Your task to perform on an android device: find snoozed emails in the gmail app Image 0: 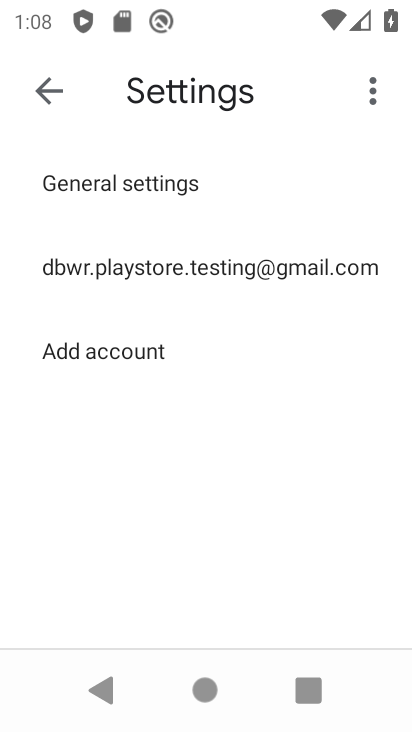
Step 0: press home button
Your task to perform on an android device: find snoozed emails in the gmail app Image 1: 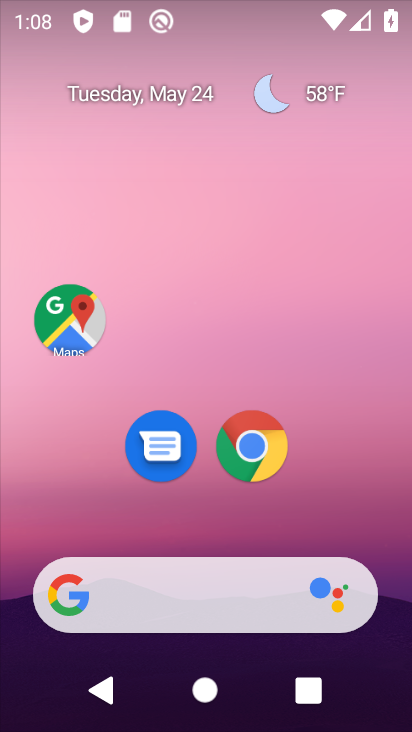
Step 1: drag from (238, 528) to (276, 243)
Your task to perform on an android device: find snoozed emails in the gmail app Image 2: 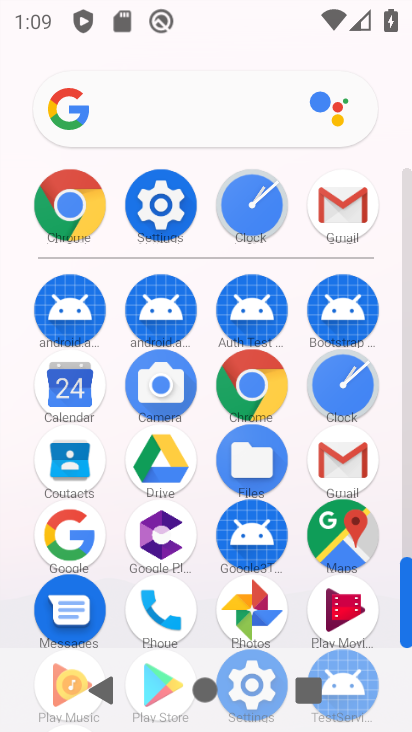
Step 2: click (341, 456)
Your task to perform on an android device: find snoozed emails in the gmail app Image 3: 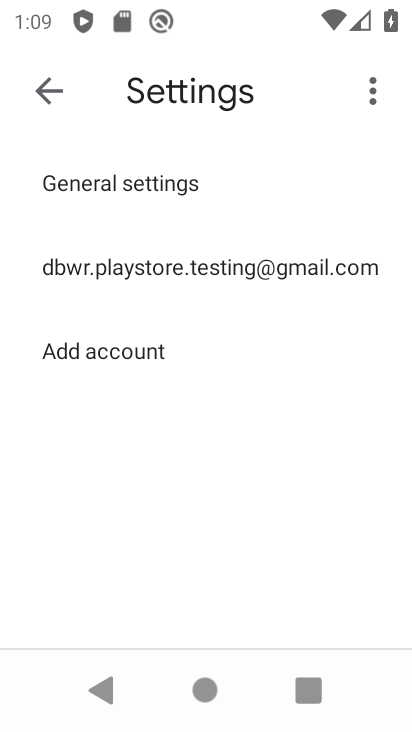
Step 3: click (37, 94)
Your task to perform on an android device: find snoozed emails in the gmail app Image 4: 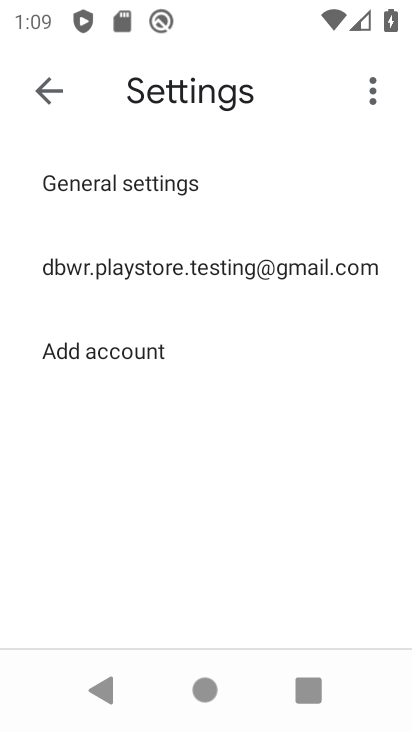
Step 4: click (39, 98)
Your task to perform on an android device: find snoozed emails in the gmail app Image 5: 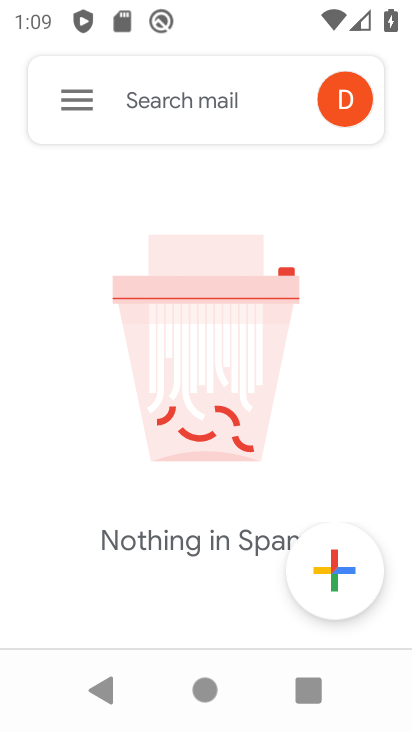
Step 5: click (86, 109)
Your task to perform on an android device: find snoozed emails in the gmail app Image 6: 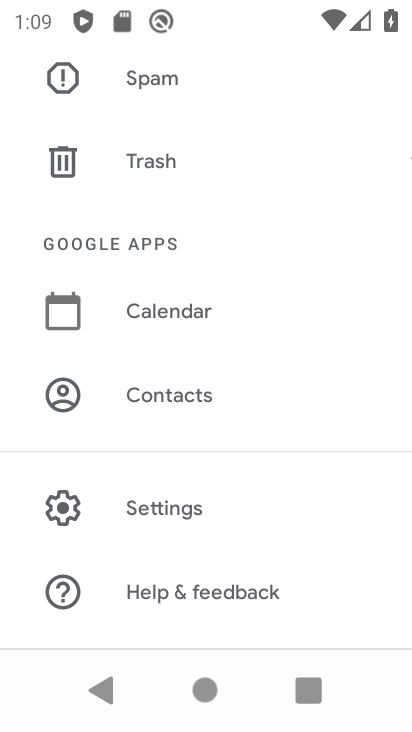
Step 6: drag from (158, 247) to (227, 644)
Your task to perform on an android device: find snoozed emails in the gmail app Image 7: 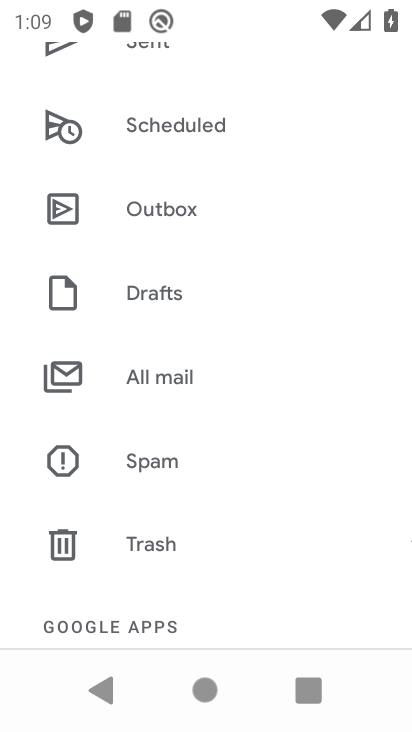
Step 7: drag from (180, 278) to (177, 669)
Your task to perform on an android device: find snoozed emails in the gmail app Image 8: 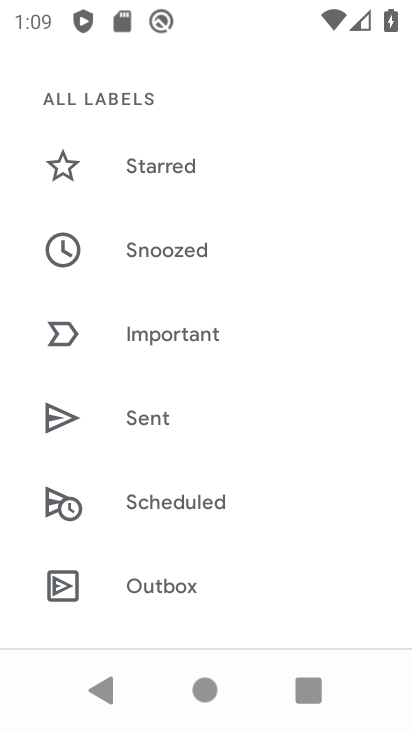
Step 8: drag from (111, 322) to (94, 472)
Your task to perform on an android device: find snoozed emails in the gmail app Image 9: 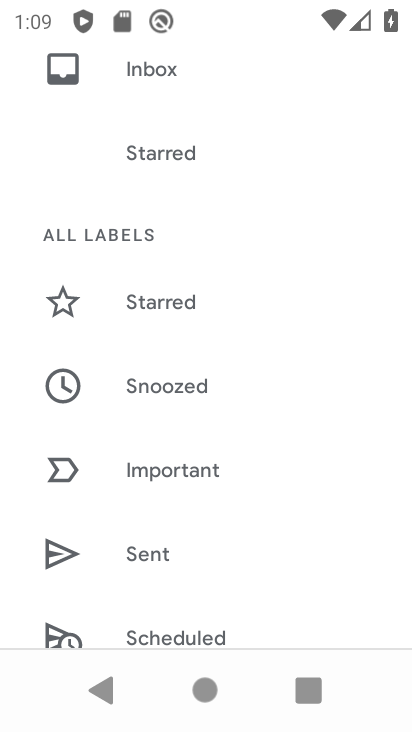
Step 9: click (116, 401)
Your task to perform on an android device: find snoozed emails in the gmail app Image 10: 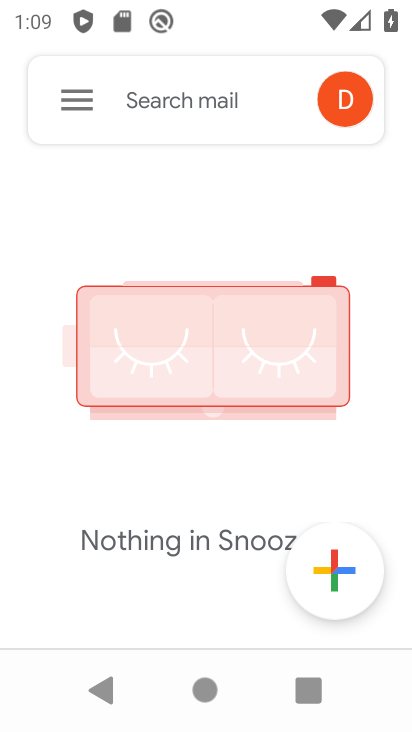
Step 10: task complete